Your task to perform on an android device: toggle data saver in the chrome app Image 0: 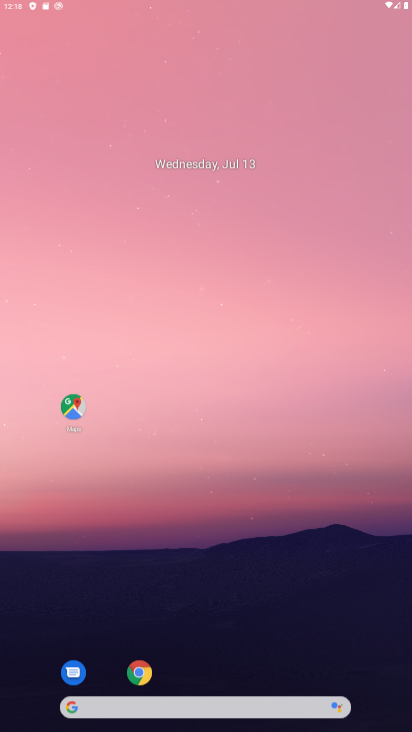
Step 0: click (259, 185)
Your task to perform on an android device: toggle data saver in the chrome app Image 1: 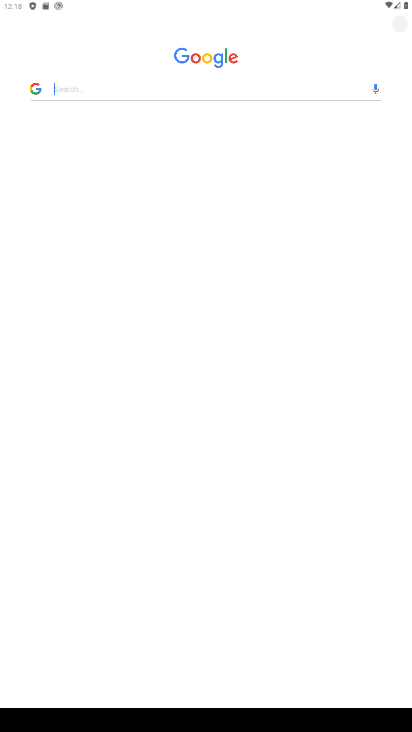
Step 1: press home button
Your task to perform on an android device: toggle data saver in the chrome app Image 2: 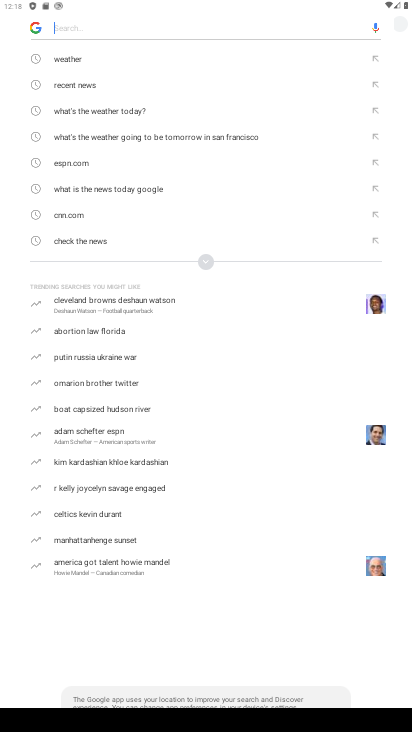
Step 2: click (265, 190)
Your task to perform on an android device: toggle data saver in the chrome app Image 3: 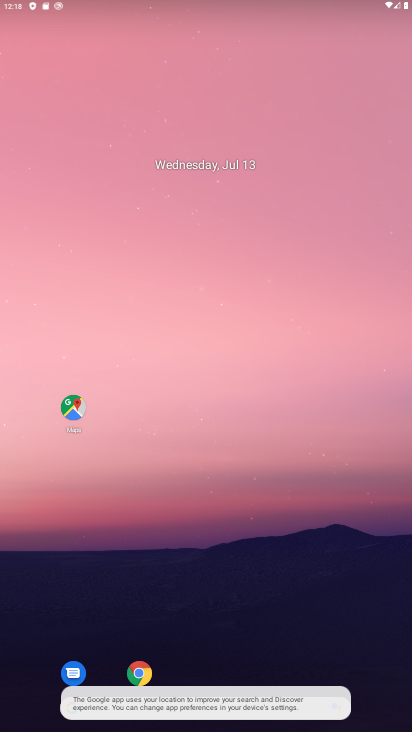
Step 3: press home button
Your task to perform on an android device: toggle data saver in the chrome app Image 4: 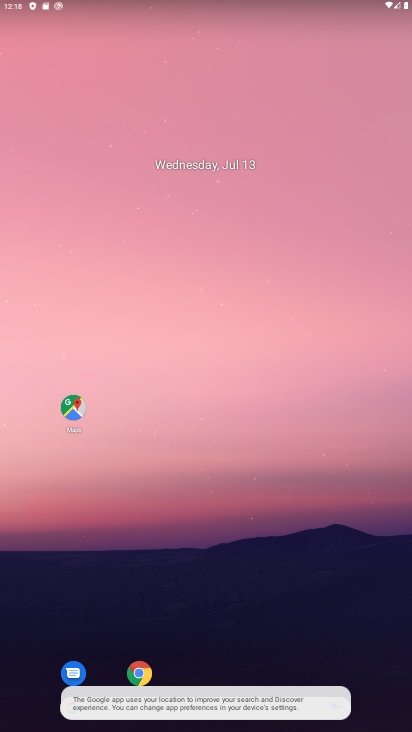
Step 4: drag from (184, 666) to (264, 168)
Your task to perform on an android device: toggle data saver in the chrome app Image 5: 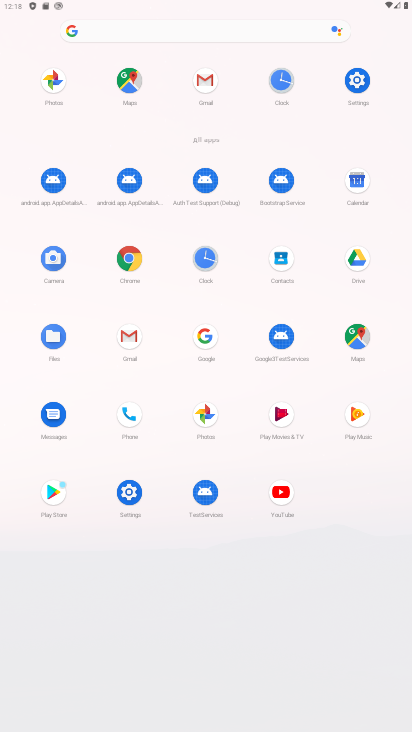
Step 5: click (126, 262)
Your task to perform on an android device: toggle data saver in the chrome app Image 6: 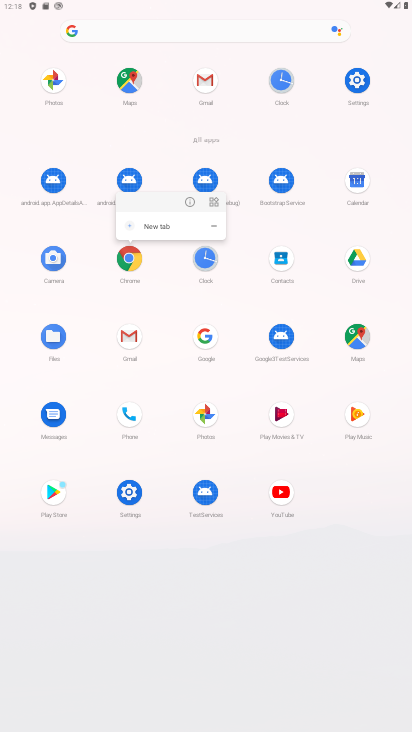
Step 6: click (185, 198)
Your task to perform on an android device: toggle data saver in the chrome app Image 7: 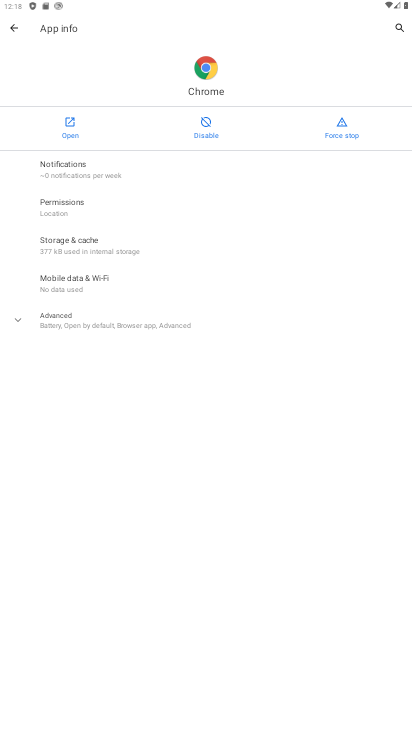
Step 7: click (72, 136)
Your task to perform on an android device: toggle data saver in the chrome app Image 8: 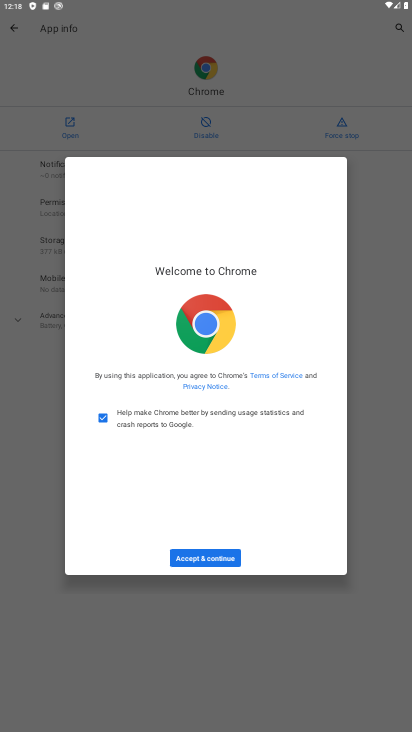
Step 8: click (199, 556)
Your task to perform on an android device: toggle data saver in the chrome app Image 9: 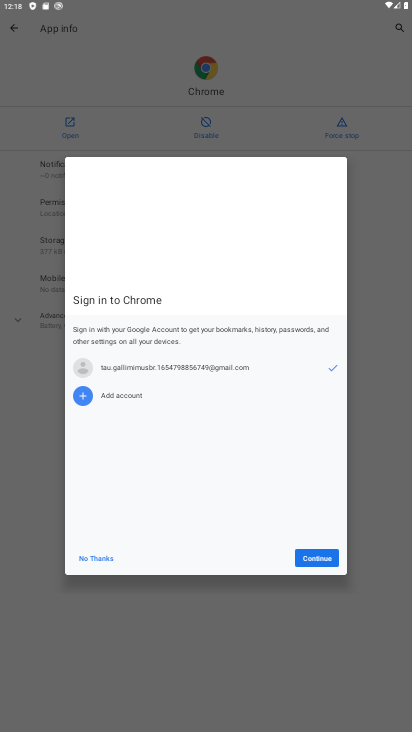
Step 9: click (324, 563)
Your task to perform on an android device: toggle data saver in the chrome app Image 10: 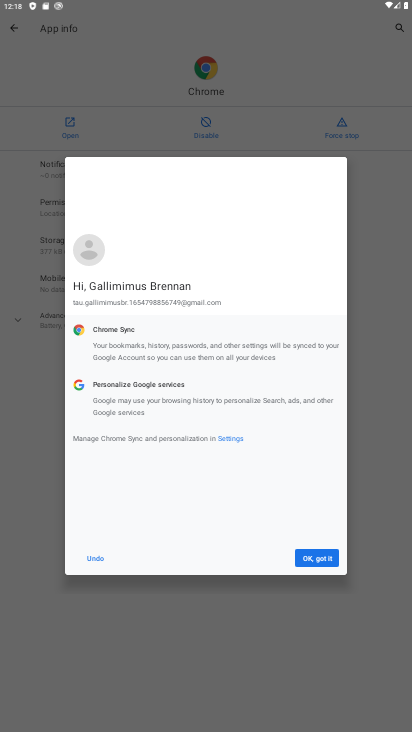
Step 10: click (308, 555)
Your task to perform on an android device: toggle data saver in the chrome app Image 11: 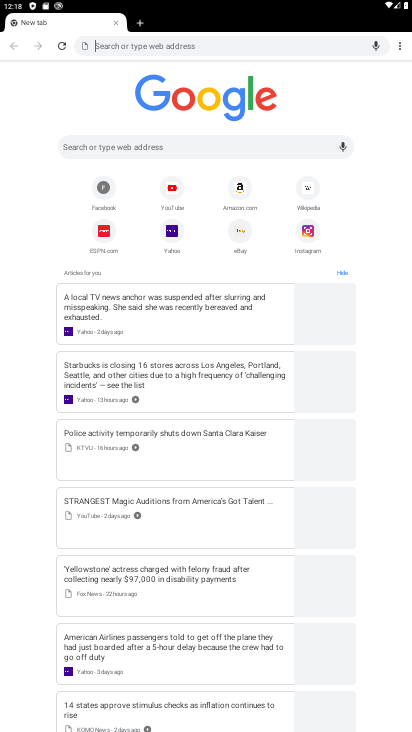
Step 11: click (399, 43)
Your task to perform on an android device: toggle data saver in the chrome app Image 12: 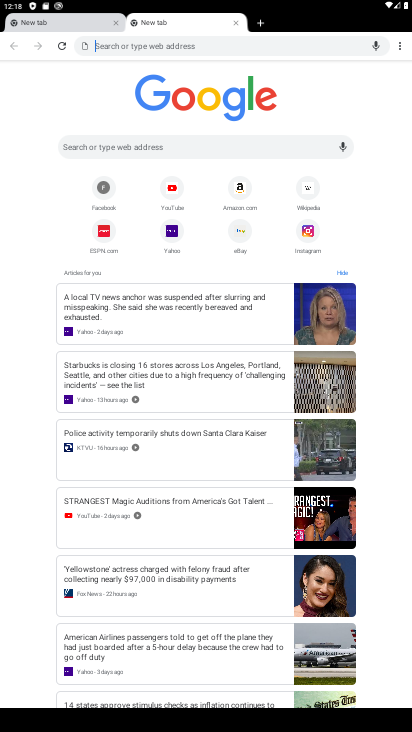
Step 12: drag from (400, 46) to (326, 213)
Your task to perform on an android device: toggle data saver in the chrome app Image 13: 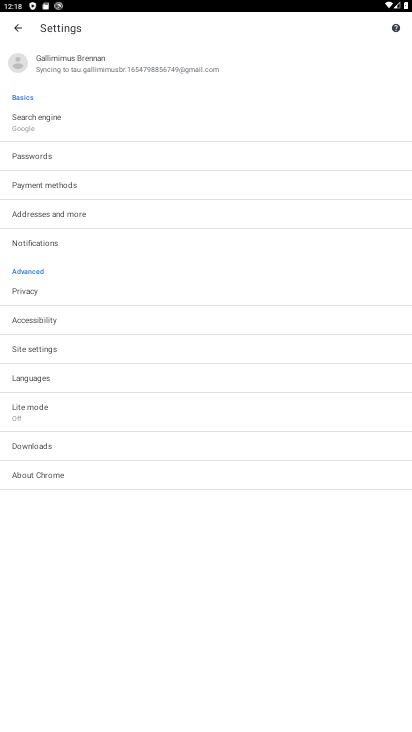
Step 13: click (61, 347)
Your task to perform on an android device: toggle data saver in the chrome app Image 14: 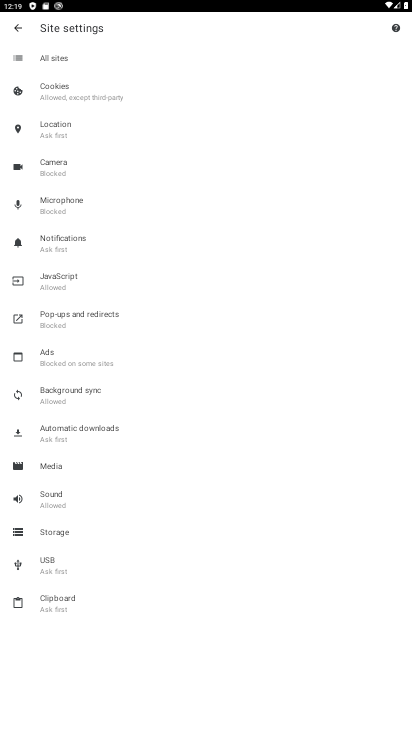
Step 14: drag from (120, 534) to (174, 255)
Your task to perform on an android device: toggle data saver in the chrome app Image 15: 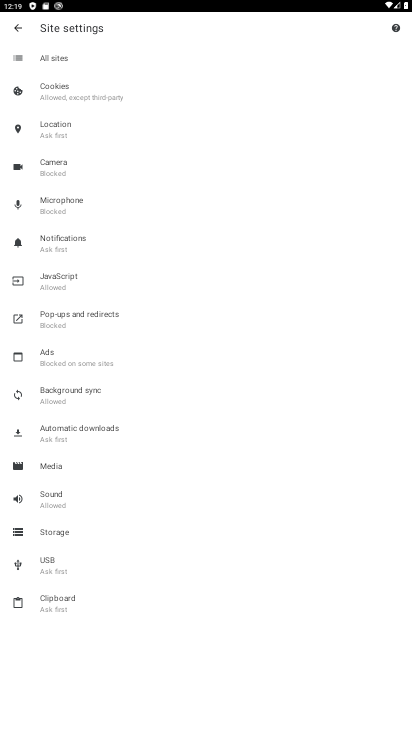
Step 15: drag from (98, 577) to (165, 378)
Your task to perform on an android device: toggle data saver in the chrome app Image 16: 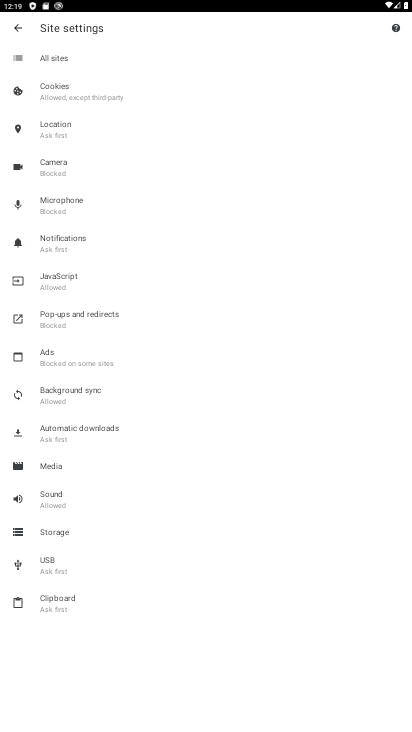
Step 16: drag from (202, 591) to (231, 323)
Your task to perform on an android device: toggle data saver in the chrome app Image 17: 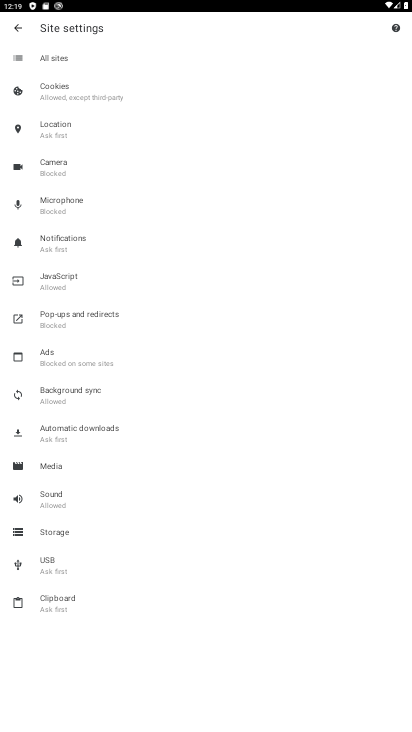
Step 17: drag from (99, 145) to (410, 612)
Your task to perform on an android device: toggle data saver in the chrome app Image 18: 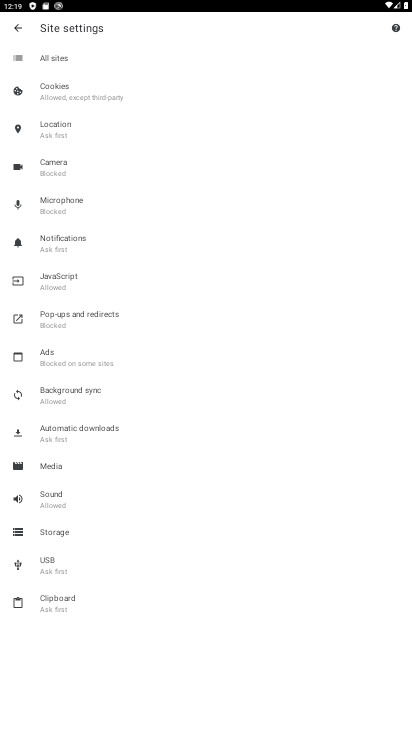
Step 18: click (12, 22)
Your task to perform on an android device: toggle data saver in the chrome app Image 19: 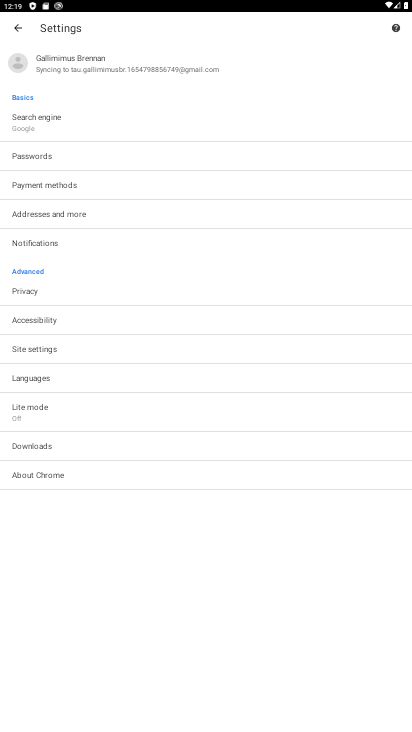
Step 19: click (59, 411)
Your task to perform on an android device: toggle data saver in the chrome app Image 20: 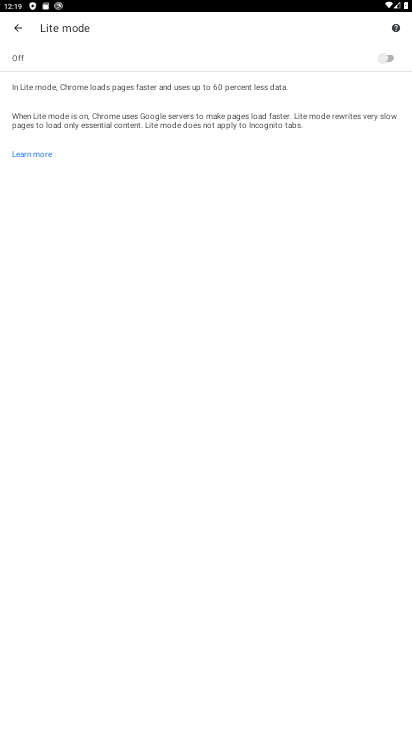
Step 20: click (363, 57)
Your task to perform on an android device: toggle data saver in the chrome app Image 21: 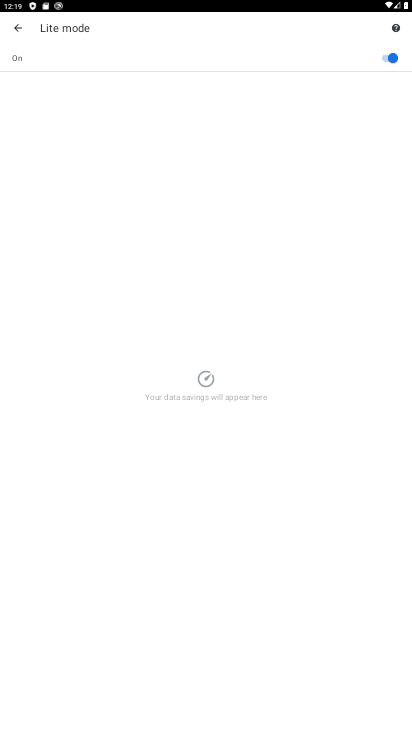
Step 21: task complete